Your task to perform on an android device: Open notification settings Image 0: 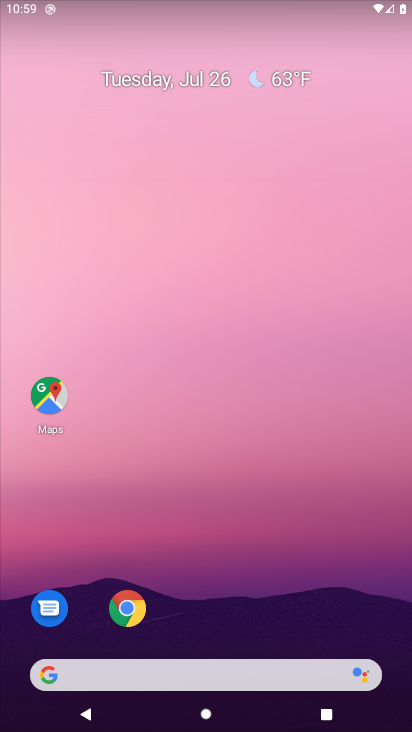
Step 0: press home button
Your task to perform on an android device: Open notification settings Image 1: 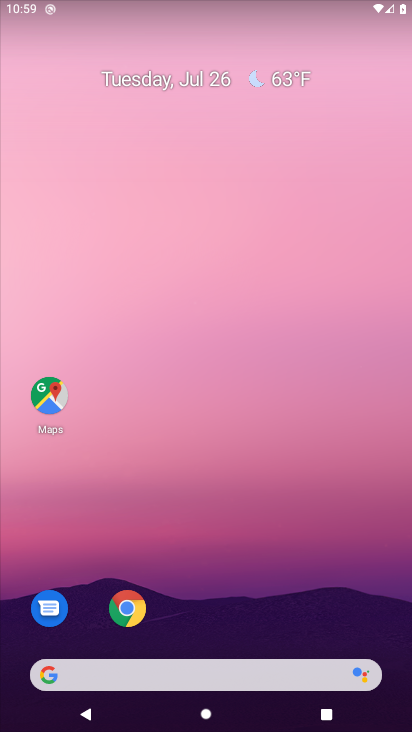
Step 1: drag from (325, 573) to (346, 210)
Your task to perform on an android device: Open notification settings Image 2: 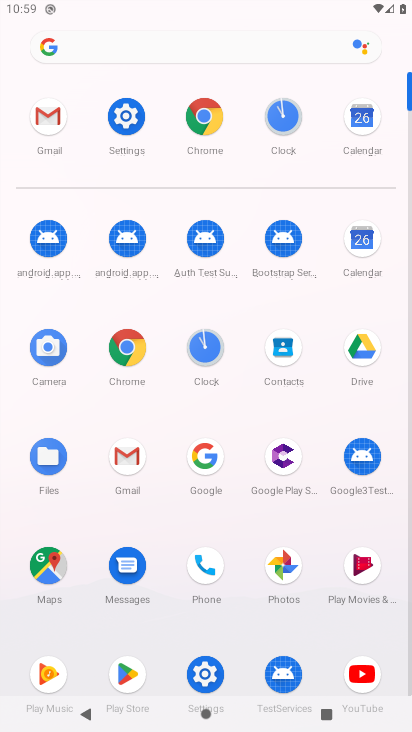
Step 2: click (122, 114)
Your task to perform on an android device: Open notification settings Image 3: 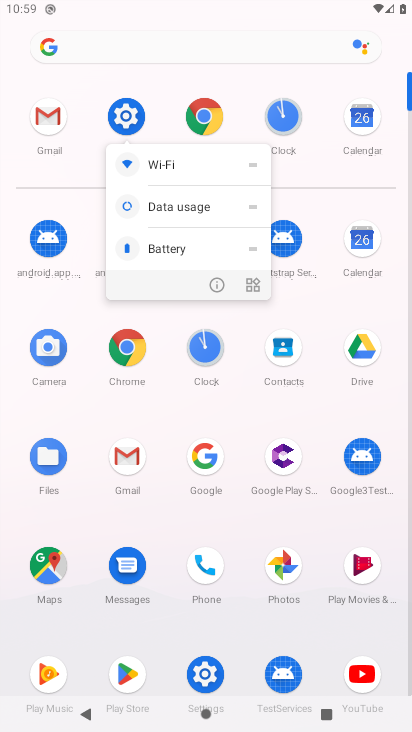
Step 3: click (116, 111)
Your task to perform on an android device: Open notification settings Image 4: 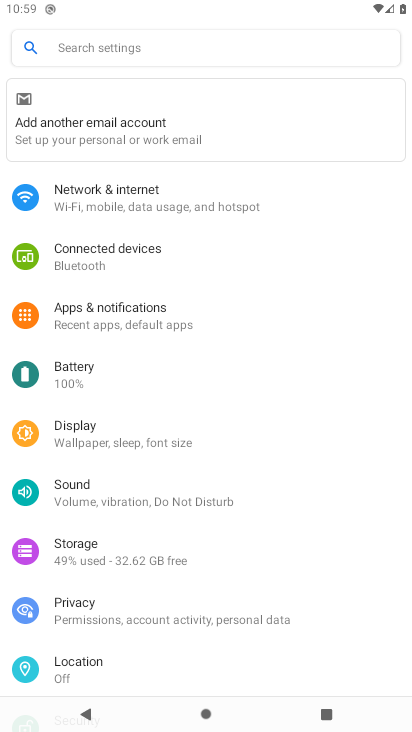
Step 4: click (115, 318)
Your task to perform on an android device: Open notification settings Image 5: 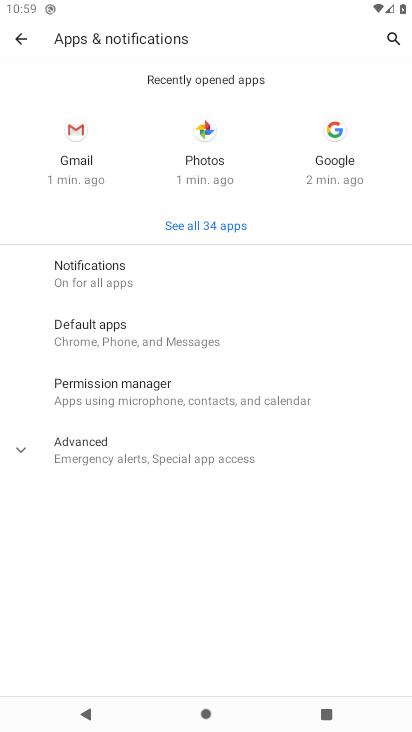
Step 5: click (122, 272)
Your task to perform on an android device: Open notification settings Image 6: 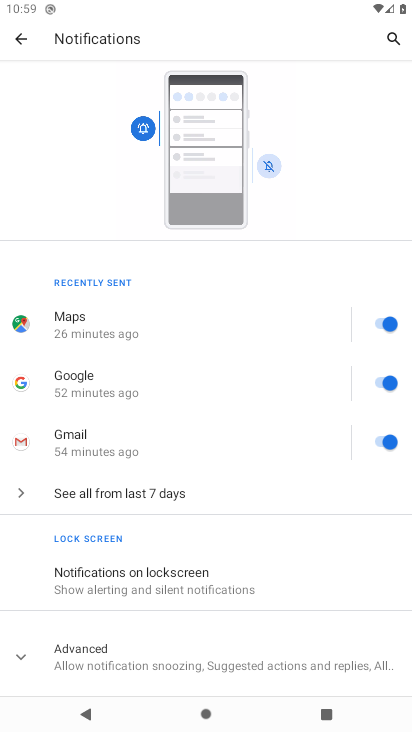
Step 6: task complete